Your task to perform on an android device: Open location settings Image 0: 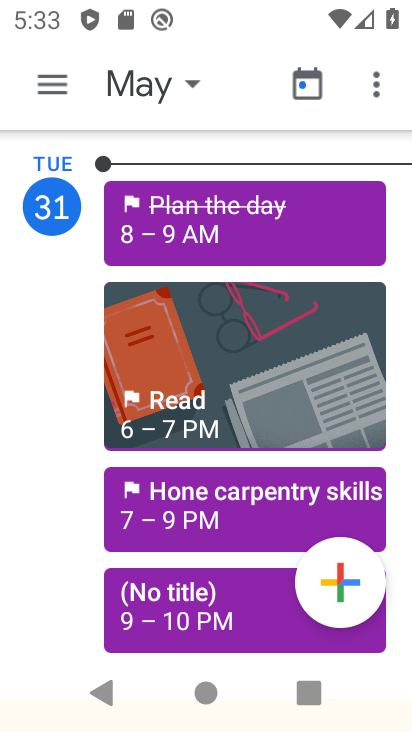
Step 0: press home button
Your task to perform on an android device: Open location settings Image 1: 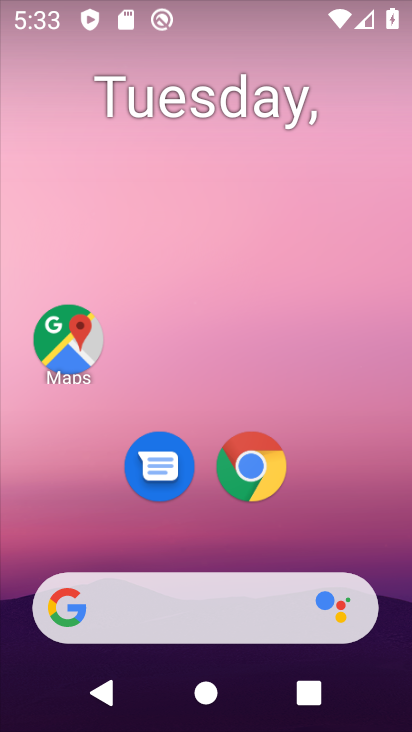
Step 1: drag from (348, 551) to (349, 73)
Your task to perform on an android device: Open location settings Image 2: 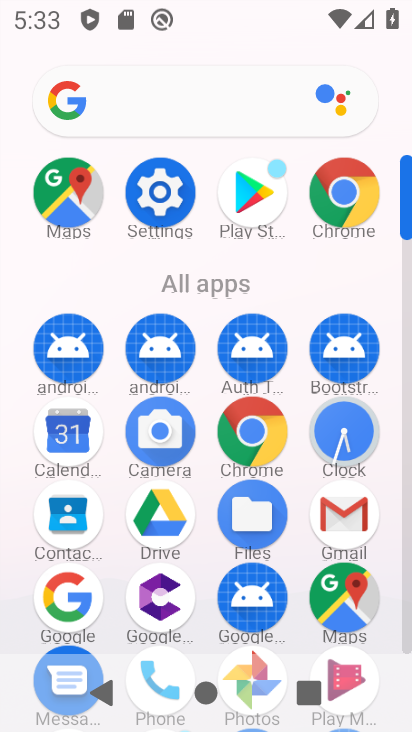
Step 2: click (175, 220)
Your task to perform on an android device: Open location settings Image 3: 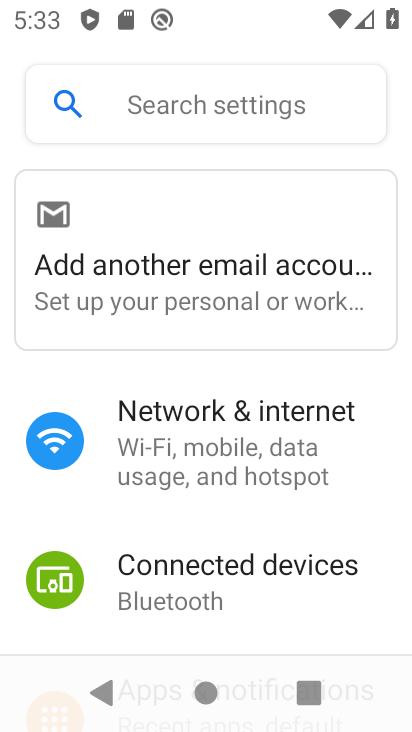
Step 3: drag from (341, 380) to (350, 135)
Your task to perform on an android device: Open location settings Image 4: 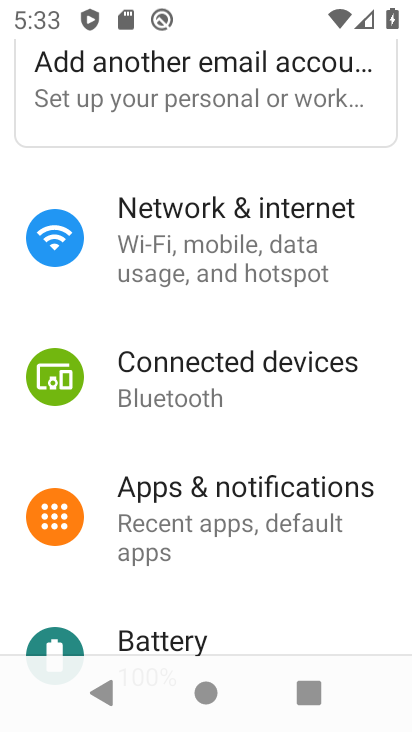
Step 4: drag from (344, 550) to (319, 209)
Your task to perform on an android device: Open location settings Image 5: 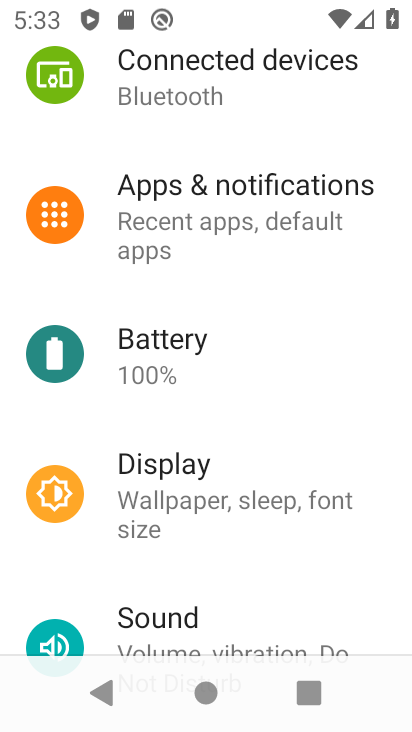
Step 5: drag from (324, 512) to (348, 197)
Your task to perform on an android device: Open location settings Image 6: 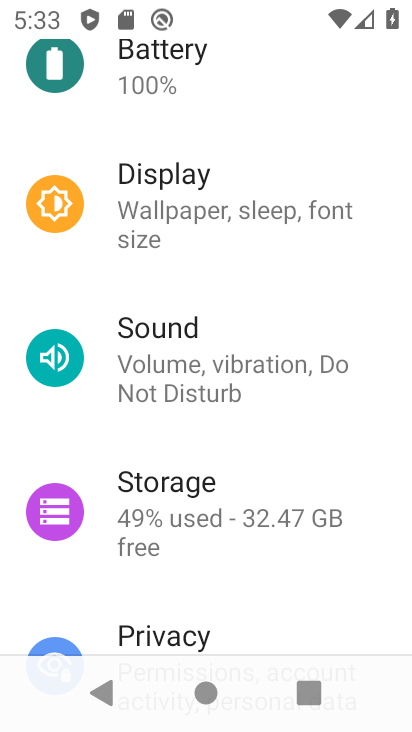
Step 6: drag from (326, 520) to (366, 275)
Your task to perform on an android device: Open location settings Image 7: 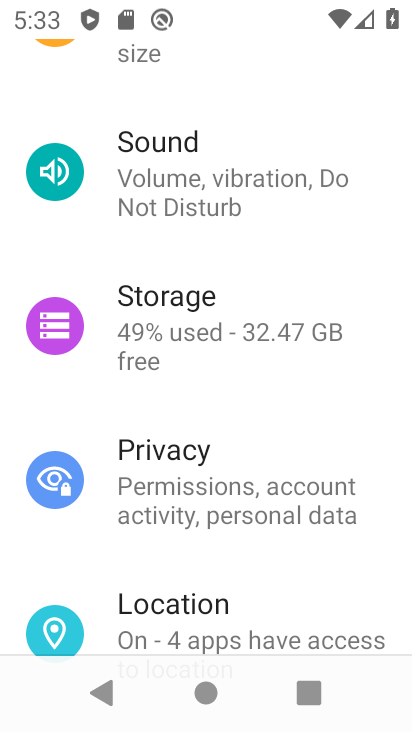
Step 7: drag from (320, 627) to (311, 449)
Your task to perform on an android device: Open location settings Image 8: 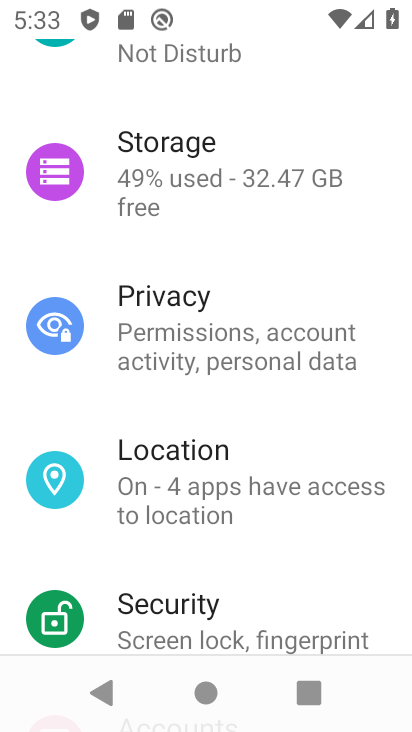
Step 8: click (305, 512)
Your task to perform on an android device: Open location settings Image 9: 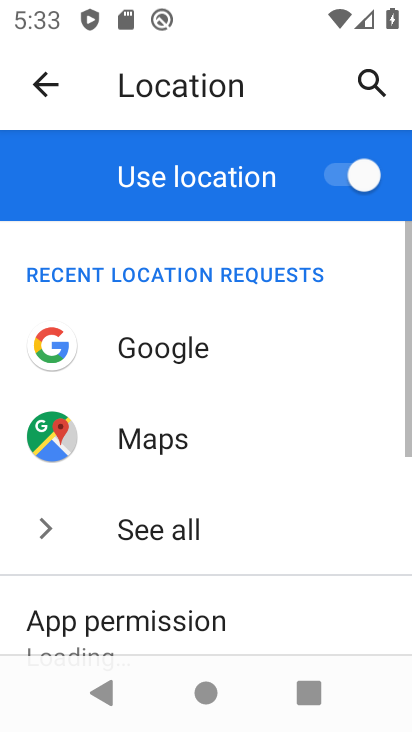
Step 9: task complete